Your task to perform on an android device: turn on the 12-hour format for clock Image 0: 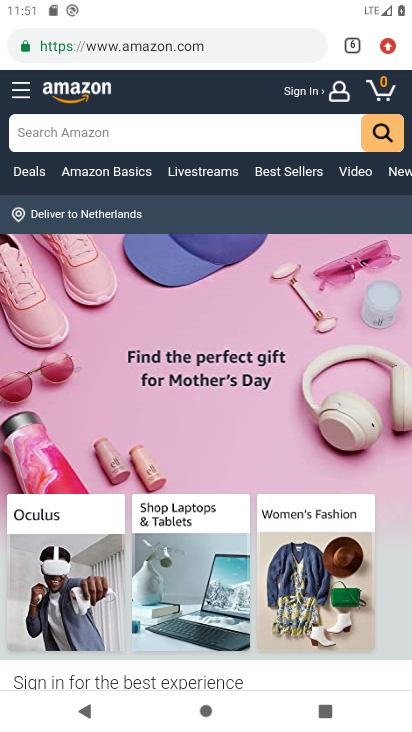
Step 0: press home button
Your task to perform on an android device: turn on the 12-hour format for clock Image 1: 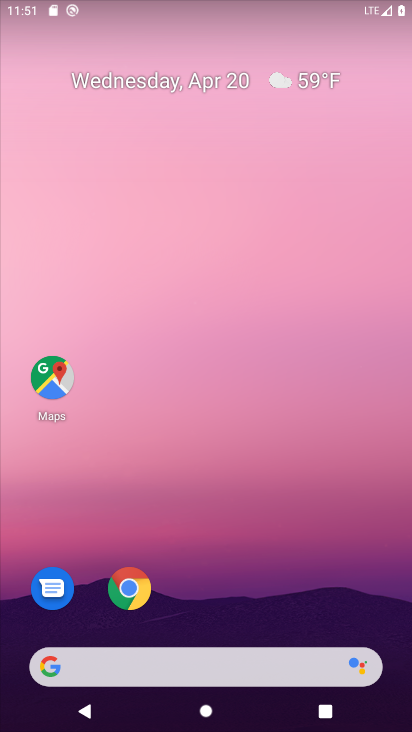
Step 1: drag from (270, 596) to (197, 77)
Your task to perform on an android device: turn on the 12-hour format for clock Image 2: 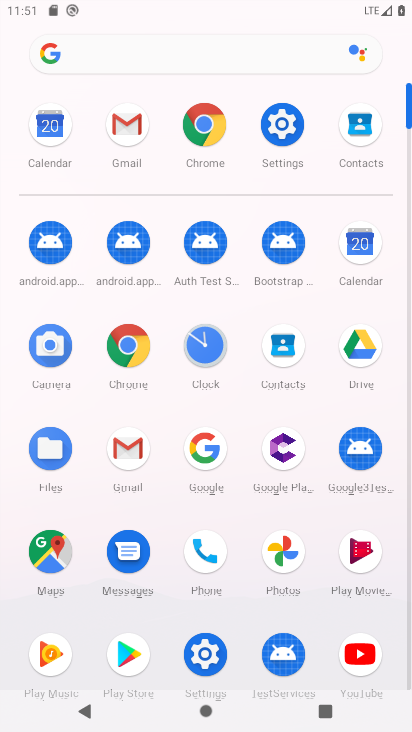
Step 2: click (202, 337)
Your task to perform on an android device: turn on the 12-hour format for clock Image 3: 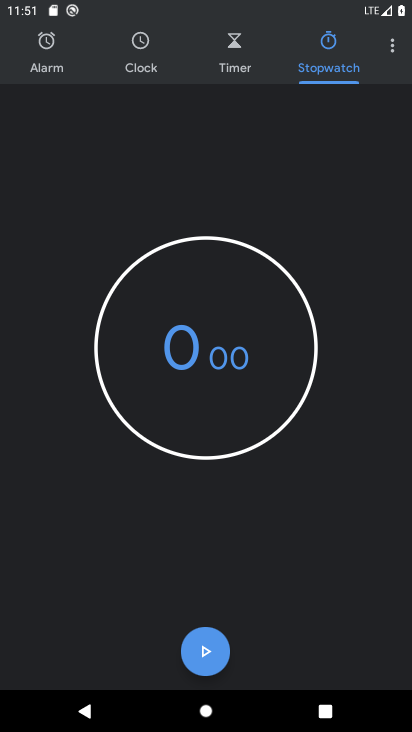
Step 3: click (391, 46)
Your task to perform on an android device: turn on the 12-hour format for clock Image 4: 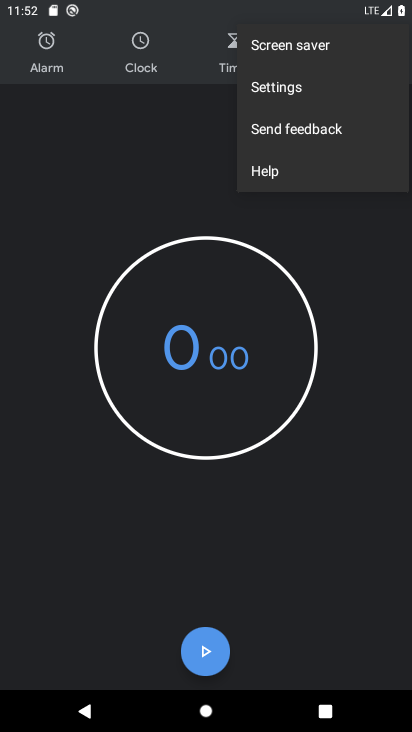
Step 4: click (290, 95)
Your task to perform on an android device: turn on the 12-hour format for clock Image 5: 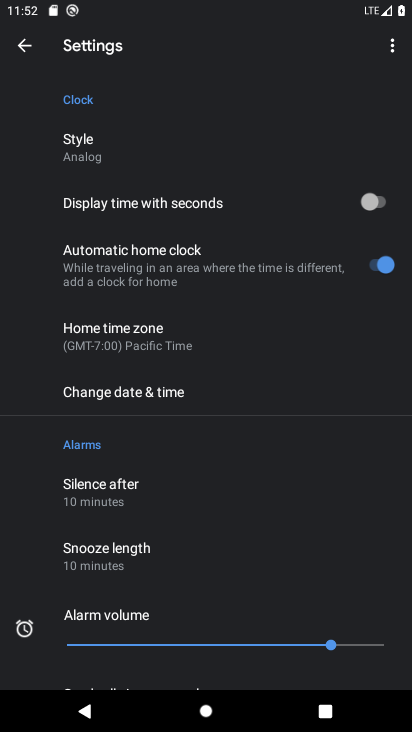
Step 5: drag from (211, 544) to (209, 310)
Your task to perform on an android device: turn on the 12-hour format for clock Image 6: 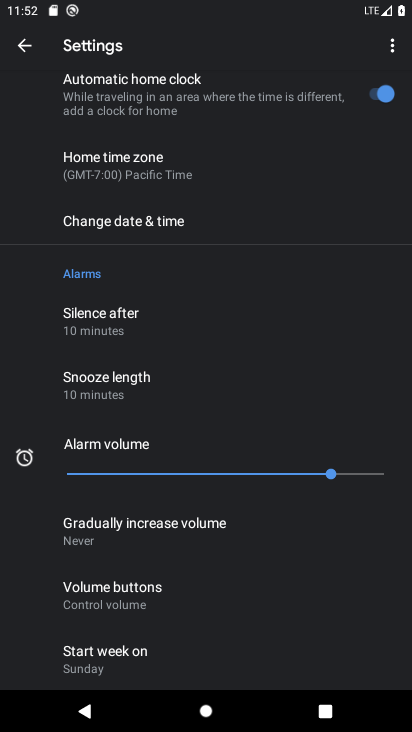
Step 6: click (139, 228)
Your task to perform on an android device: turn on the 12-hour format for clock Image 7: 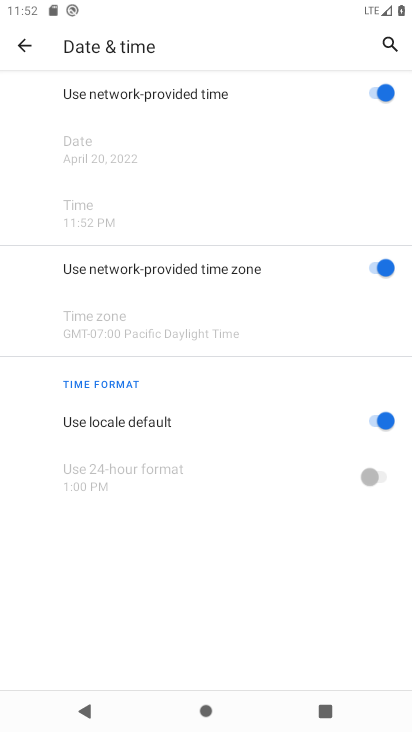
Step 7: task complete